Your task to perform on an android device: What's on Reddit Image 0: 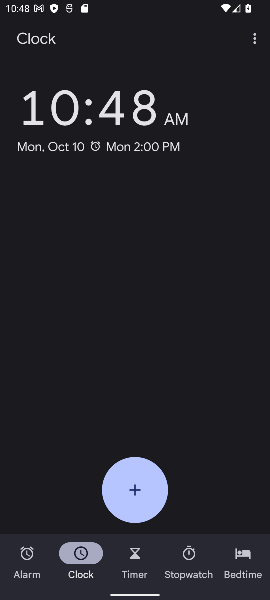
Step 0: press home button
Your task to perform on an android device: What's on Reddit Image 1: 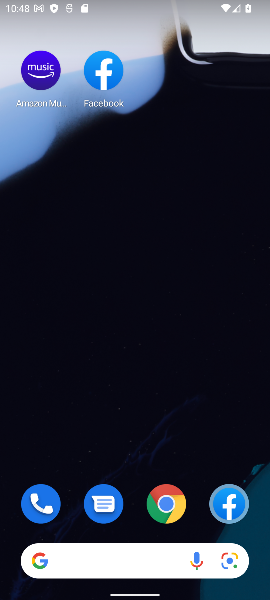
Step 1: click (165, 506)
Your task to perform on an android device: What's on Reddit Image 2: 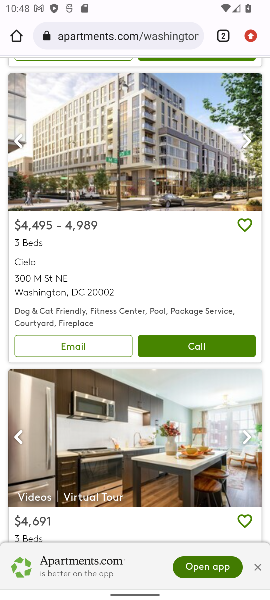
Step 2: click (112, 25)
Your task to perform on an android device: What's on Reddit Image 3: 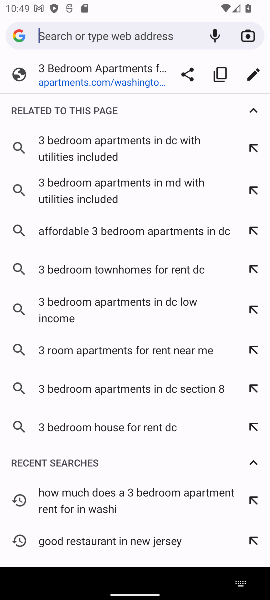
Step 3: type "reddit"
Your task to perform on an android device: What's on Reddit Image 4: 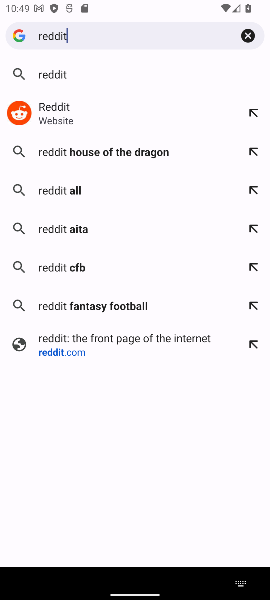
Step 4: click (49, 121)
Your task to perform on an android device: What's on Reddit Image 5: 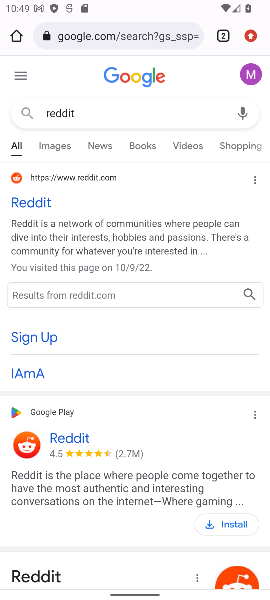
Step 5: click (49, 121)
Your task to perform on an android device: What's on Reddit Image 6: 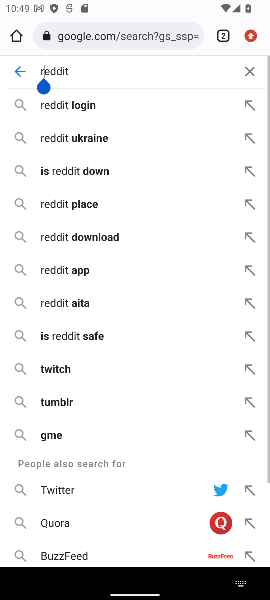
Step 6: click (250, 68)
Your task to perform on an android device: What's on Reddit Image 7: 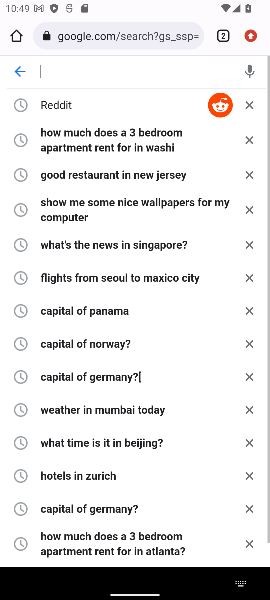
Step 7: click (47, 105)
Your task to perform on an android device: What's on Reddit Image 8: 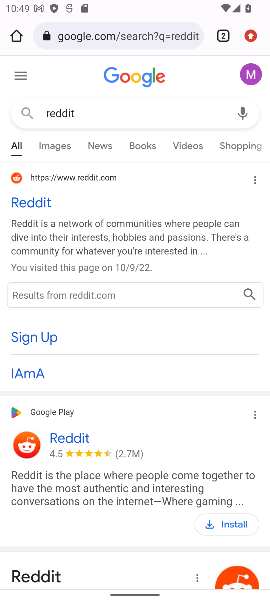
Step 8: click (20, 193)
Your task to perform on an android device: What's on Reddit Image 9: 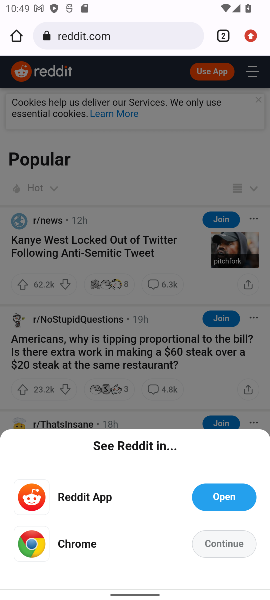
Step 9: task complete